Your task to perform on an android device: Open Amazon Image 0: 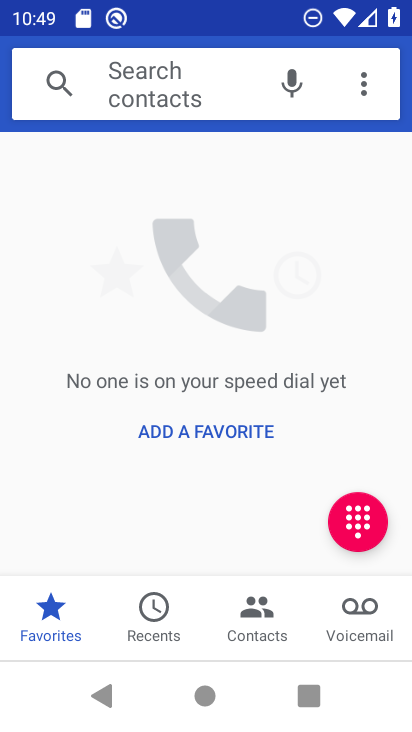
Step 0: press home button
Your task to perform on an android device: Open Amazon Image 1: 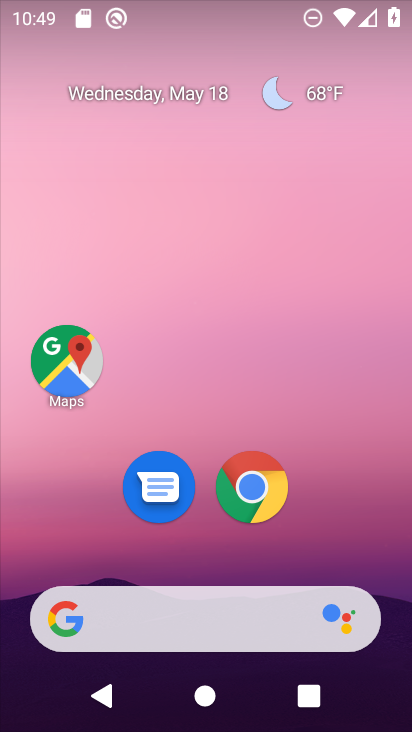
Step 1: drag from (368, 523) to (375, 80)
Your task to perform on an android device: Open Amazon Image 2: 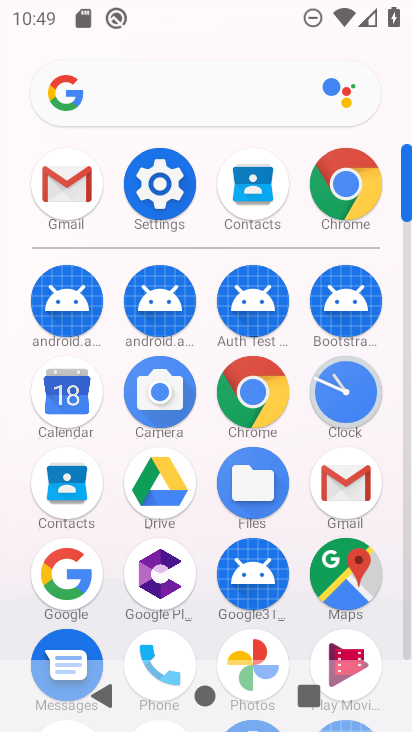
Step 2: click (284, 415)
Your task to perform on an android device: Open Amazon Image 3: 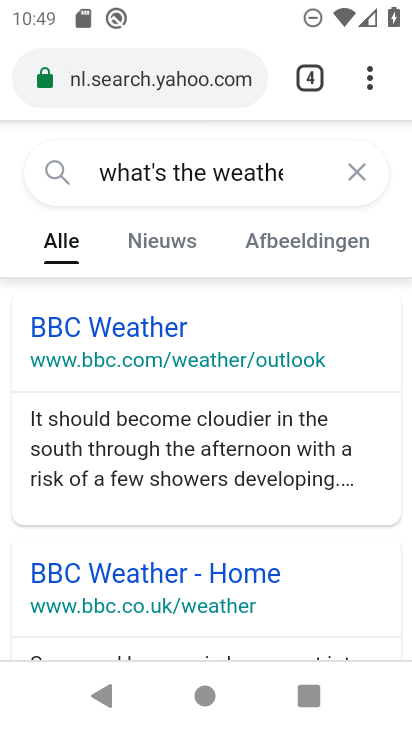
Step 3: click (321, 77)
Your task to perform on an android device: Open Amazon Image 4: 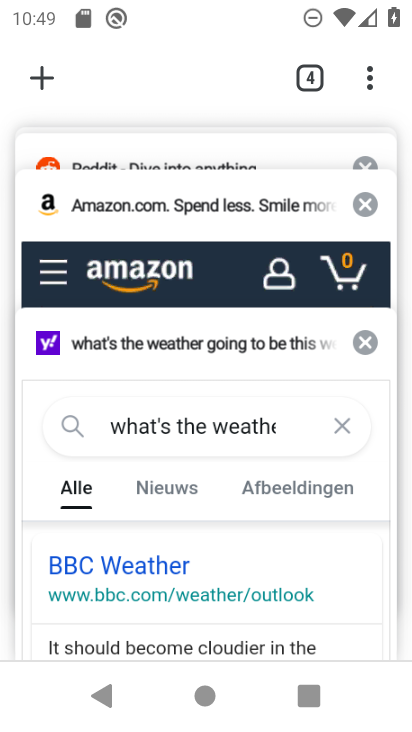
Step 4: click (41, 78)
Your task to perform on an android device: Open Amazon Image 5: 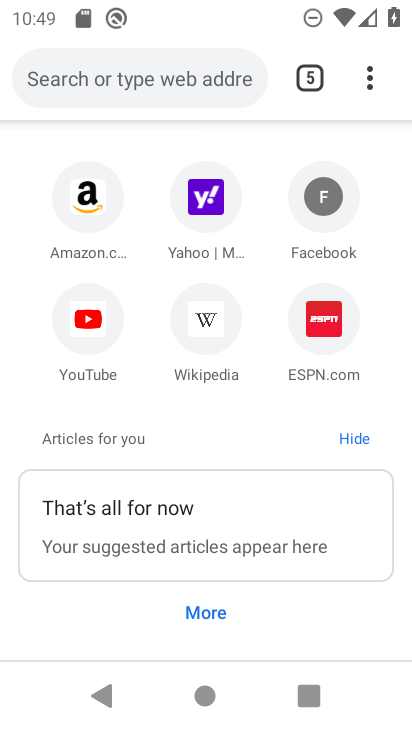
Step 5: click (76, 207)
Your task to perform on an android device: Open Amazon Image 6: 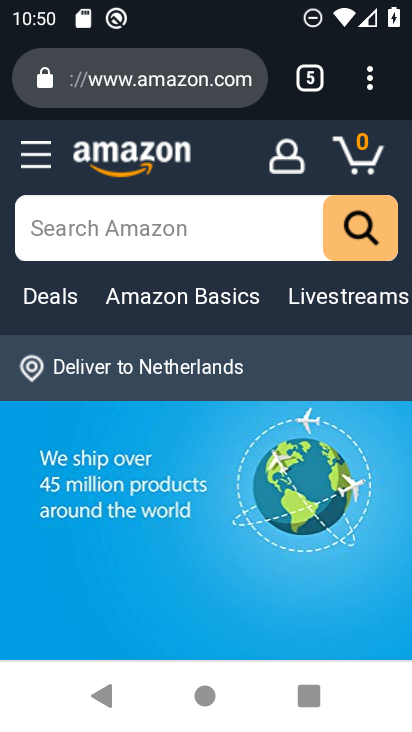
Step 6: task complete